Your task to perform on an android device: toggle translation in the chrome app Image 0: 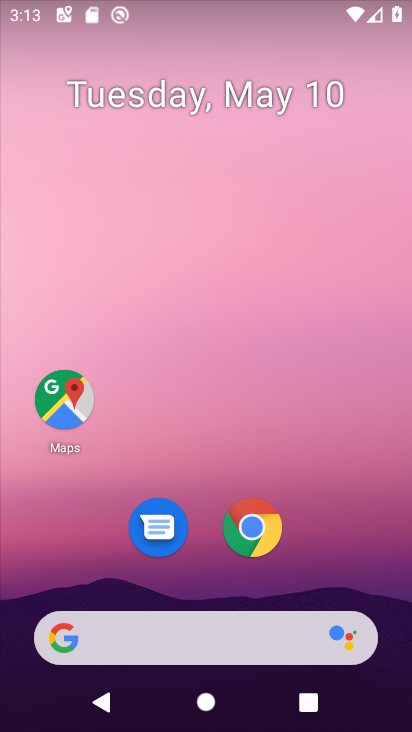
Step 0: click (247, 528)
Your task to perform on an android device: toggle translation in the chrome app Image 1: 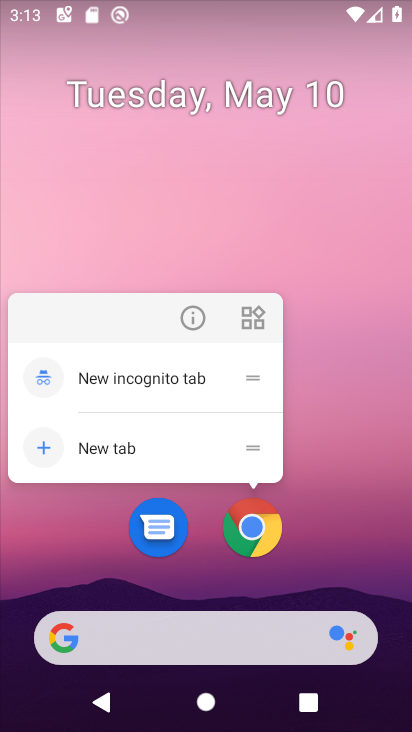
Step 1: click (247, 528)
Your task to perform on an android device: toggle translation in the chrome app Image 2: 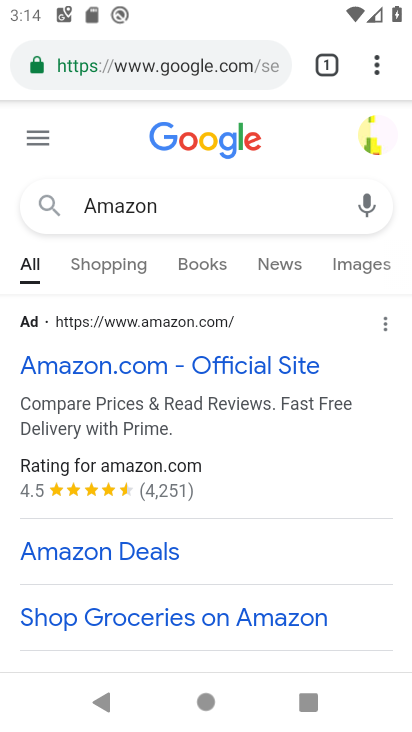
Step 2: click (378, 57)
Your task to perform on an android device: toggle translation in the chrome app Image 3: 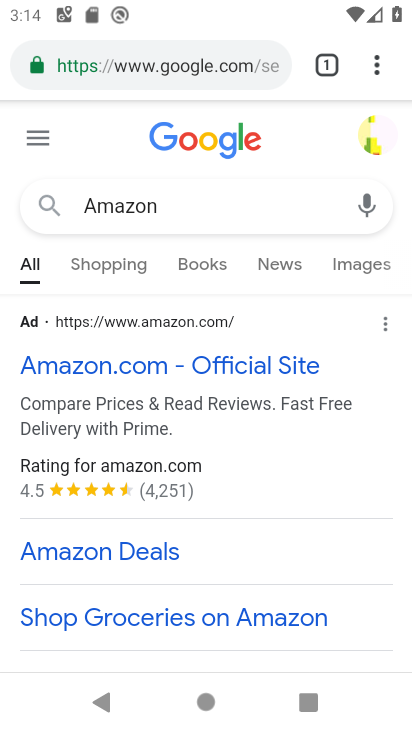
Step 3: click (376, 67)
Your task to perform on an android device: toggle translation in the chrome app Image 4: 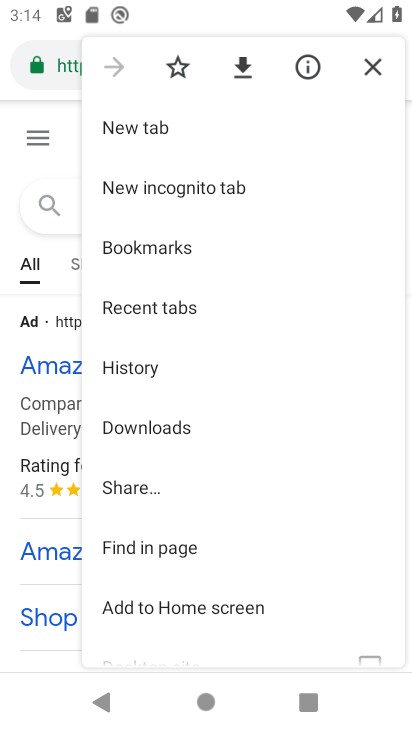
Step 4: drag from (327, 546) to (323, 268)
Your task to perform on an android device: toggle translation in the chrome app Image 5: 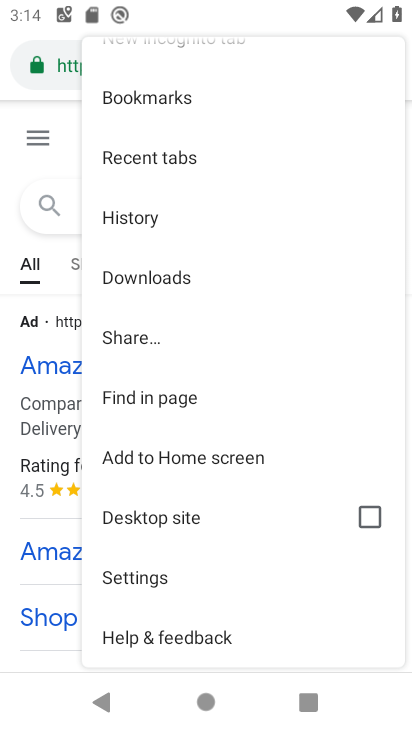
Step 5: drag from (280, 636) to (272, 295)
Your task to perform on an android device: toggle translation in the chrome app Image 6: 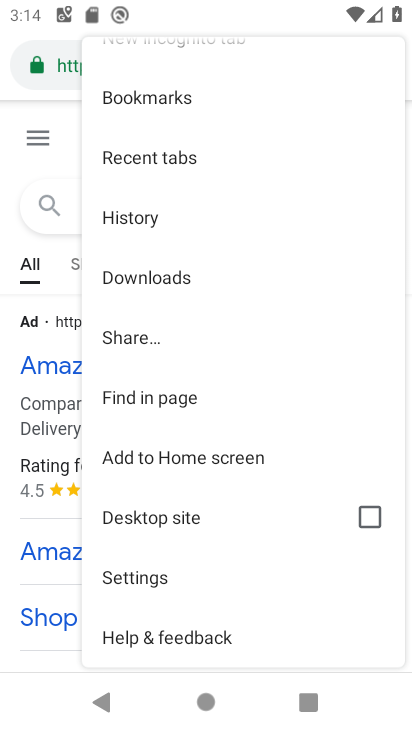
Step 6: drag from (277, 410) to (267, 336)
Your task to perform on an android device: toggle translation in the chrome app Image 7: 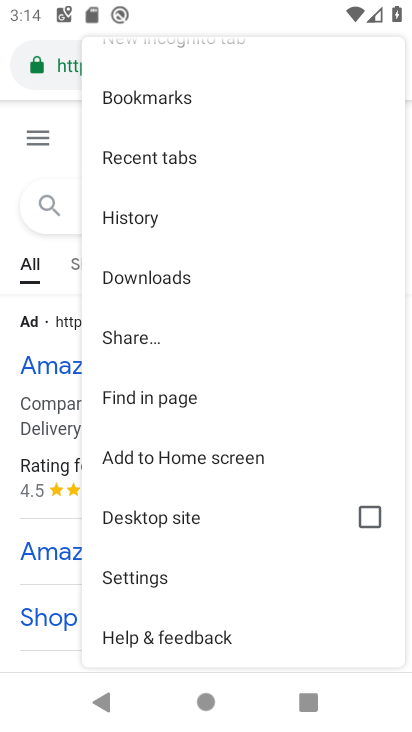
Step 7: click (118, 575)
Your task to perform on an android device: toggle translation in the chrome app Image 8: 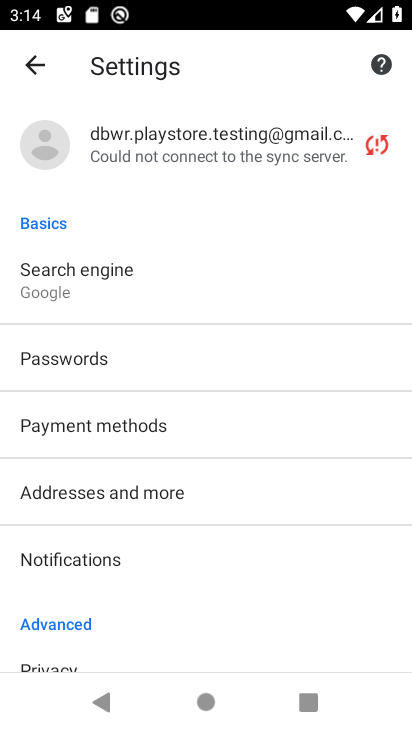
Step 8: drag from (273, 641) to (285, 341)
Your task to perform on an android device: toggle translation in the chrome app Image 9: 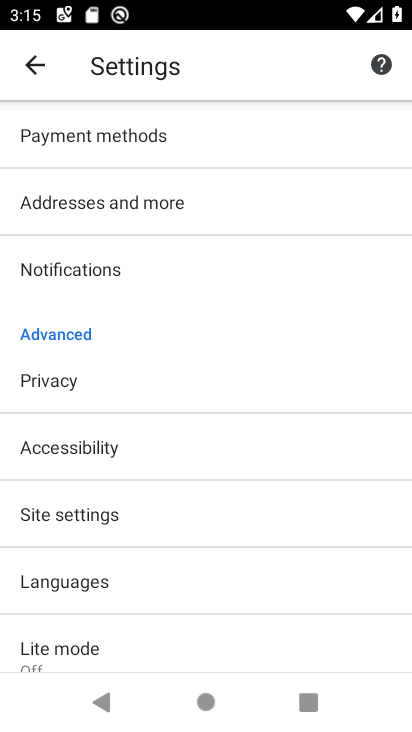
Step 9: click (69, 585)
Your task to perform on an android device: toggle translation in the chrome app Image 10: 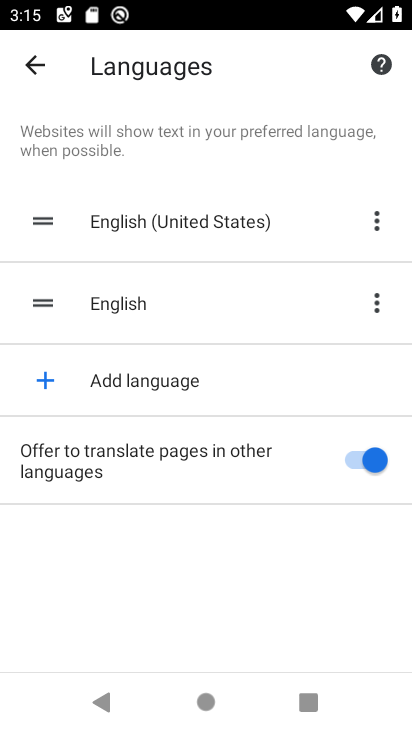
Step 10: click (354, 456)
Your task to perform on an android device: toggle translation in the chrome app Image 11: 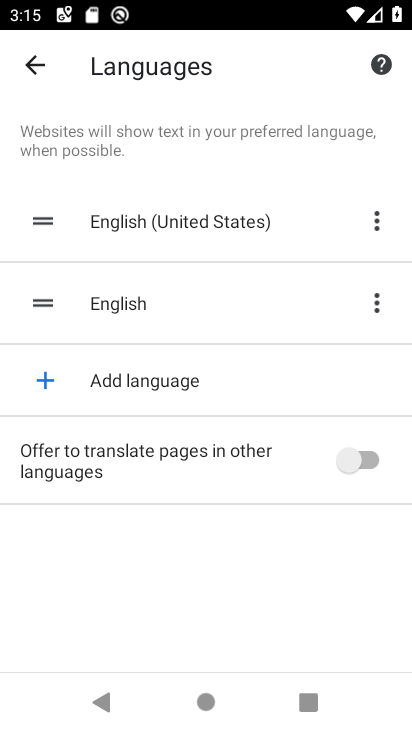
Step 11: task complete